Your task to perform on an android device: Open the Play Movies app and select the watchlist tab. Image 0: 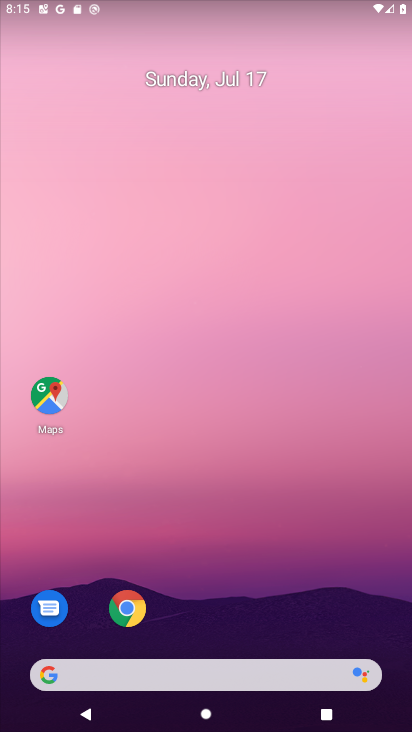
Step 0: drag from (217, 632) to (145, 120)
Your task to perform on an android device: Open the Play Movies app and select the watchlist tab. Image 1: 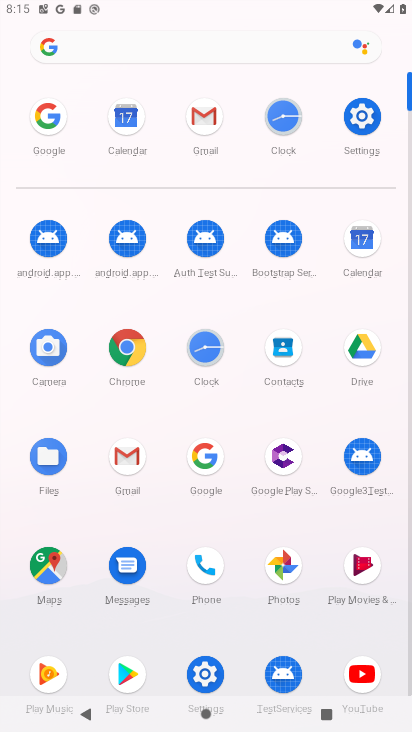
Step 1: click (351, 570)
Your task to perform on an android device: Open the Play Movies app and select the watchlist tab. Image 2: 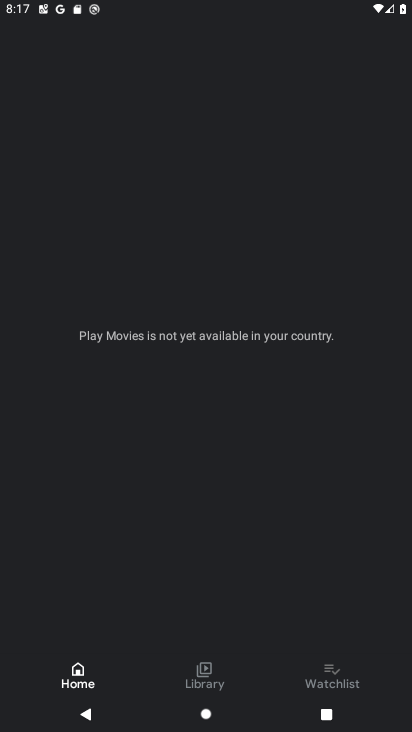
Step 2: click (318, 685)
Your task to perform on an android device: Open the Play Movies app and select the watchlist tab. Image 3: 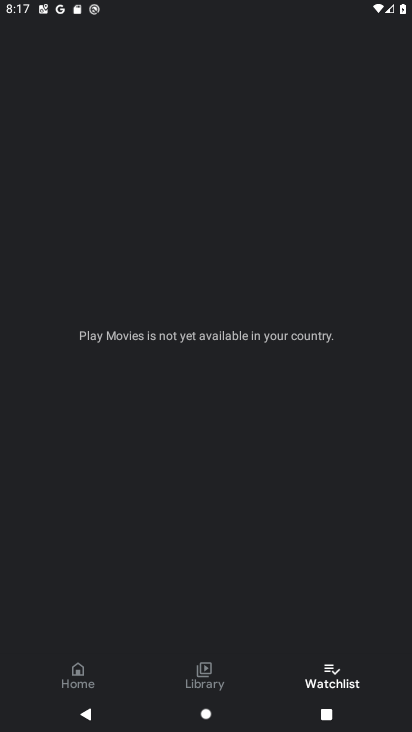
Step 3: task complete